Your task to perform on an android device: Search for the best rated soccer ball on AliExpress Image 0: 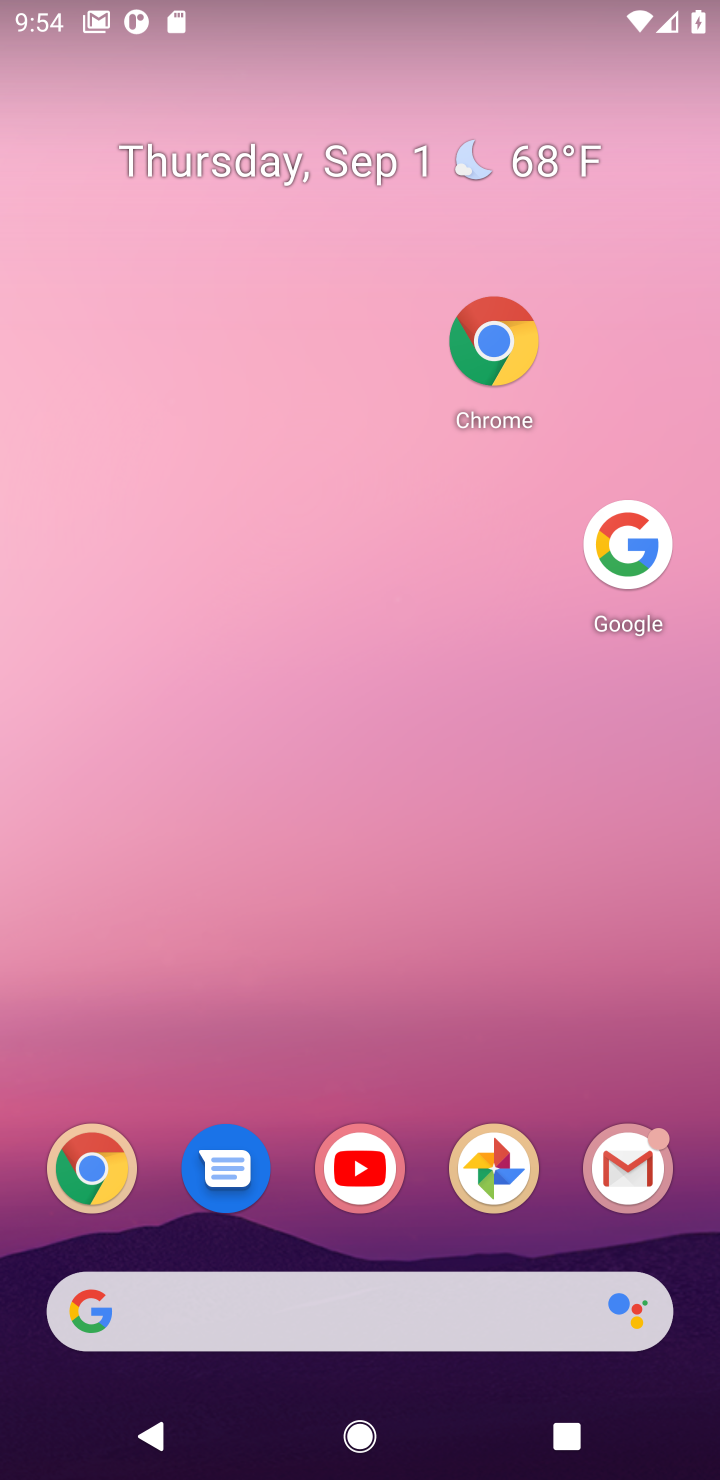
Step 0: click (626, 536)
Your task to perform on an android device: Search for the best rated soccer ball on AliExpress Image 1: 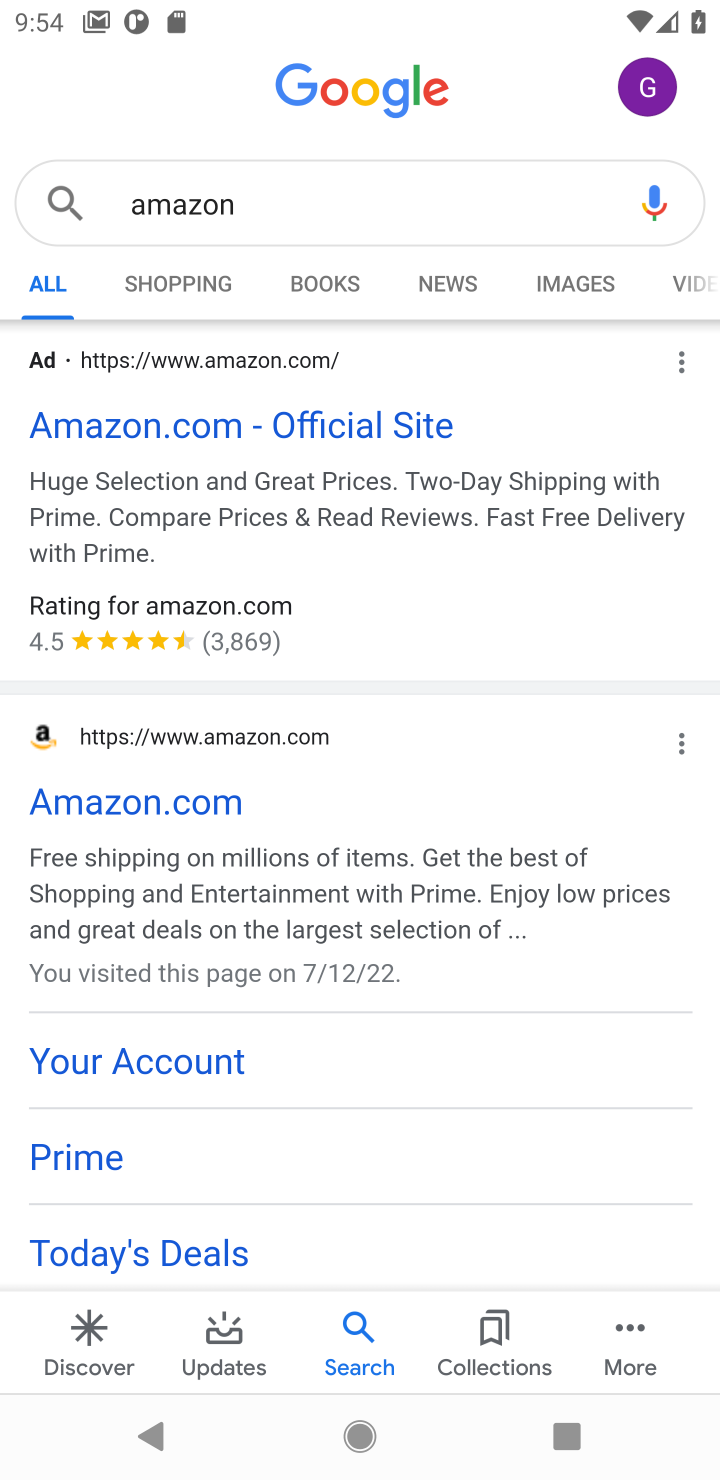
Step 1: click (369, 200)
Your task to perform on an android device: Search for the best rated soccer ball on AliExpress Image 2: 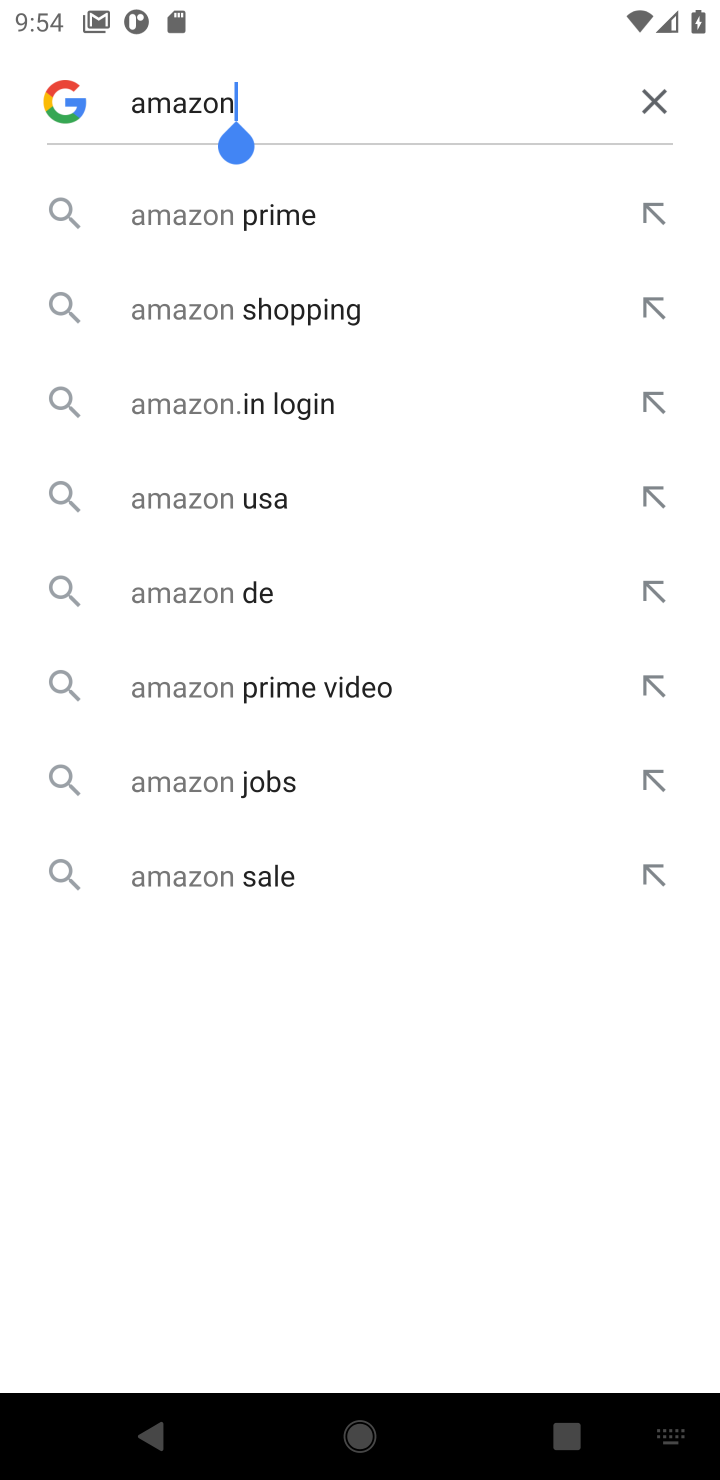
Step 2: click (644, 95)
Your task to perform on an android device: Search for the best rated soccer ball on AliExpress Image 3: 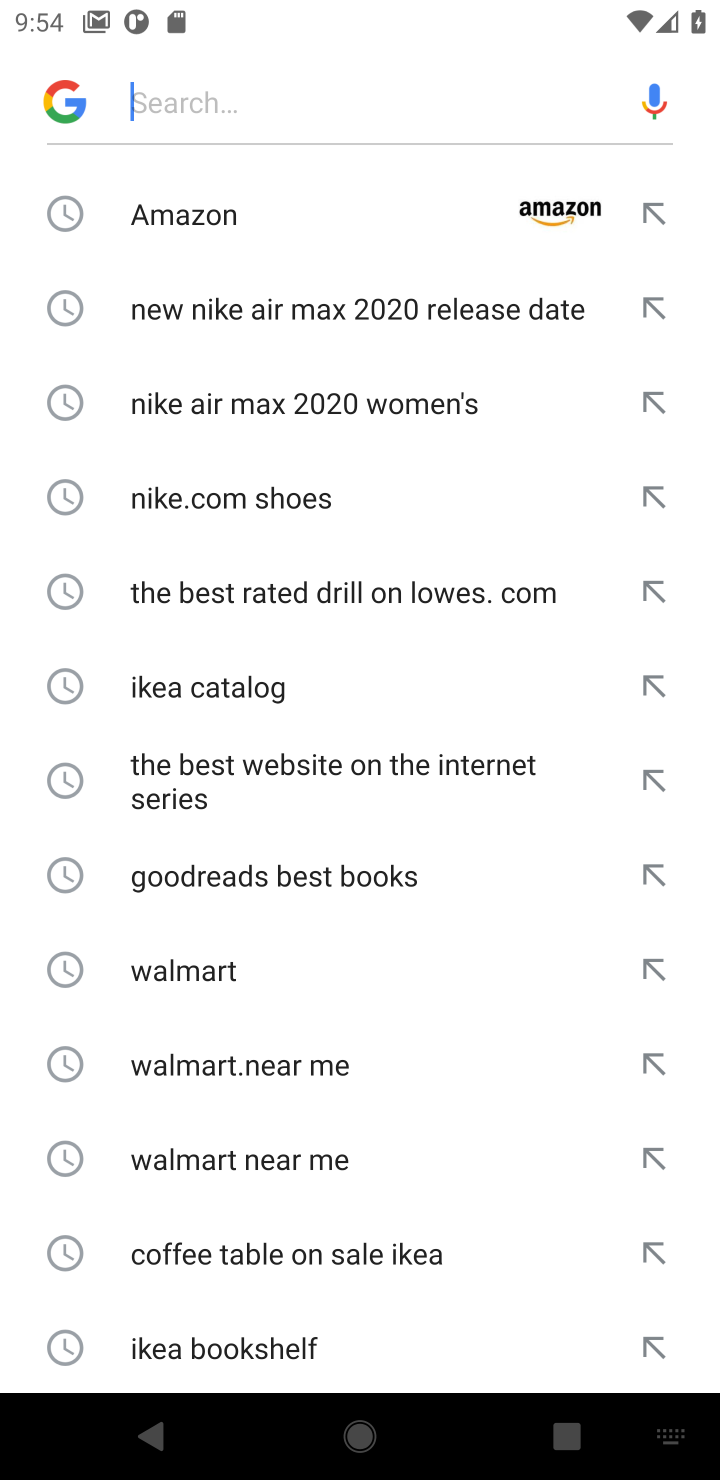
Step 3: click (226, 95)
Your task to perform on an android device: Search for the best rated soccer ball on AliExpress Image 4: 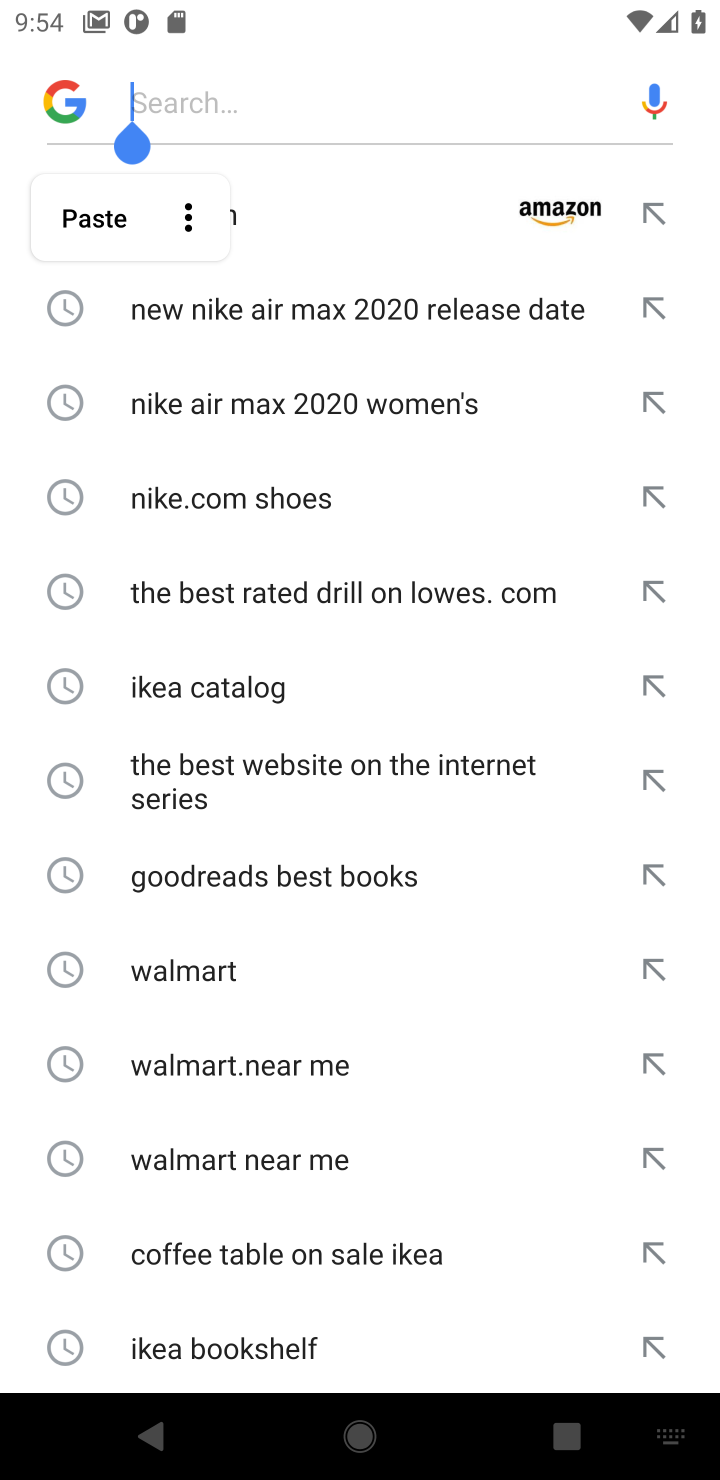
Step 4: type "AliExpress "
Your task to perform on an android device: Search for the best rated soccer ball on AliExpress Image 5: 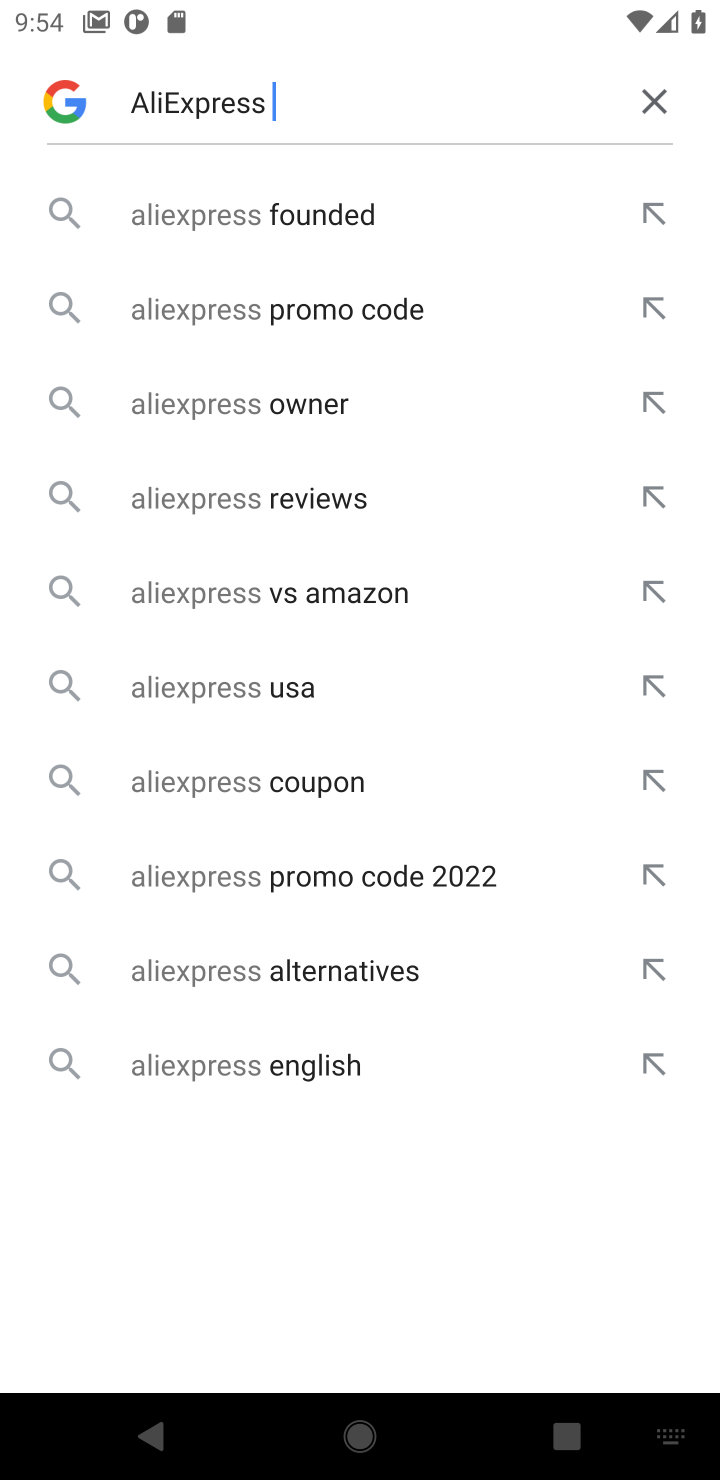
Step 5: click (234, 223)
Your task to perform on an android device: Search for the best rated soccer ball on AliExpress Image 6: 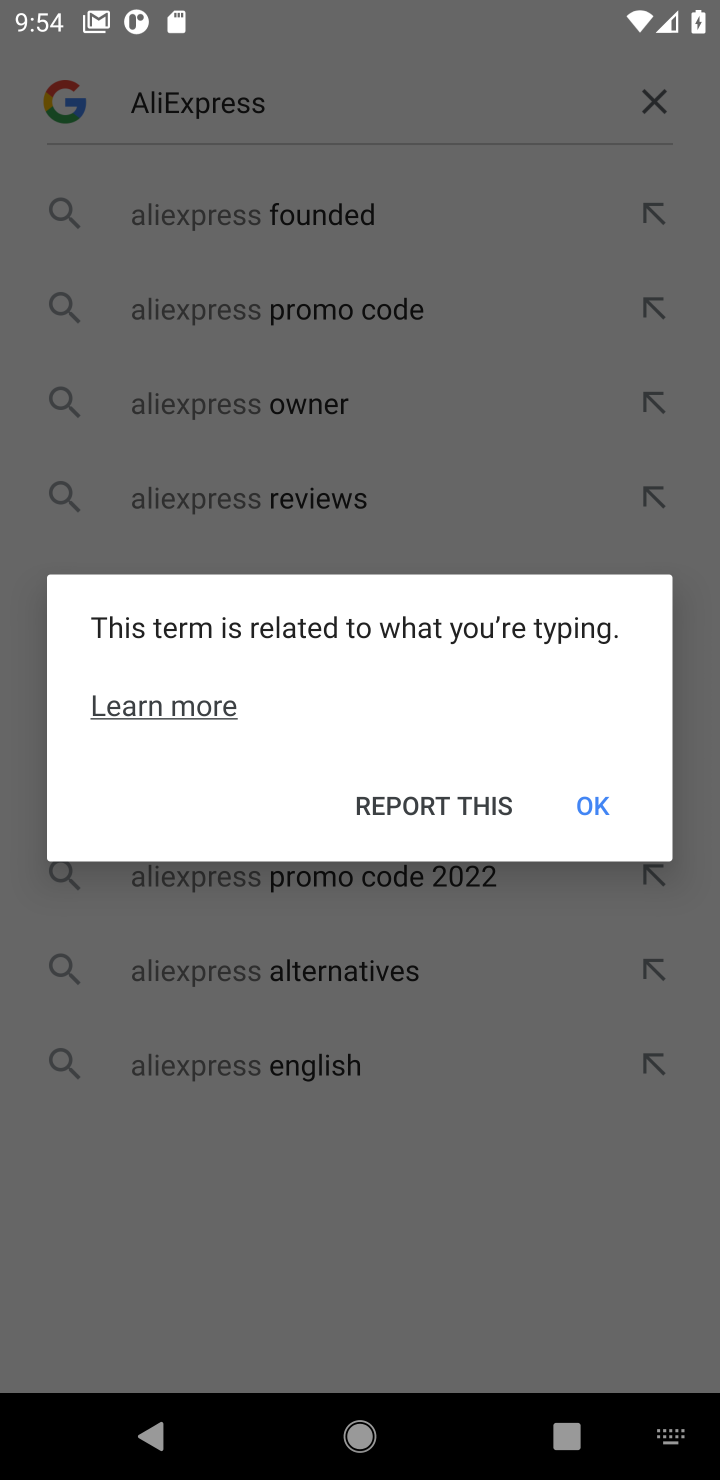
Step 6: click (605, 823)
Your task to perform on an android device: Search for the best rated soccer ball on AliExpress Image 7: 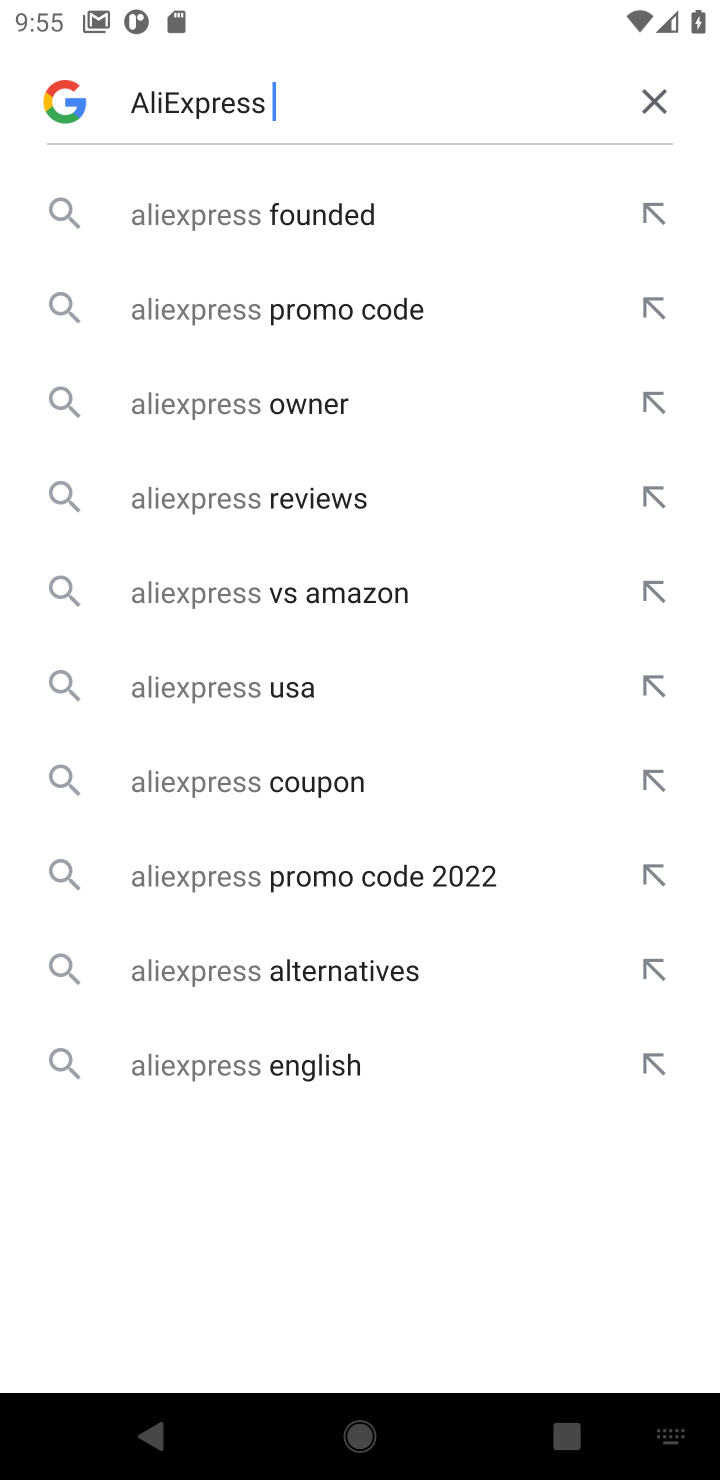
Step 7: click (652, 102)
Your task to perform on an android device: Search for the best rated soccer ball on AliExpress Image 8: 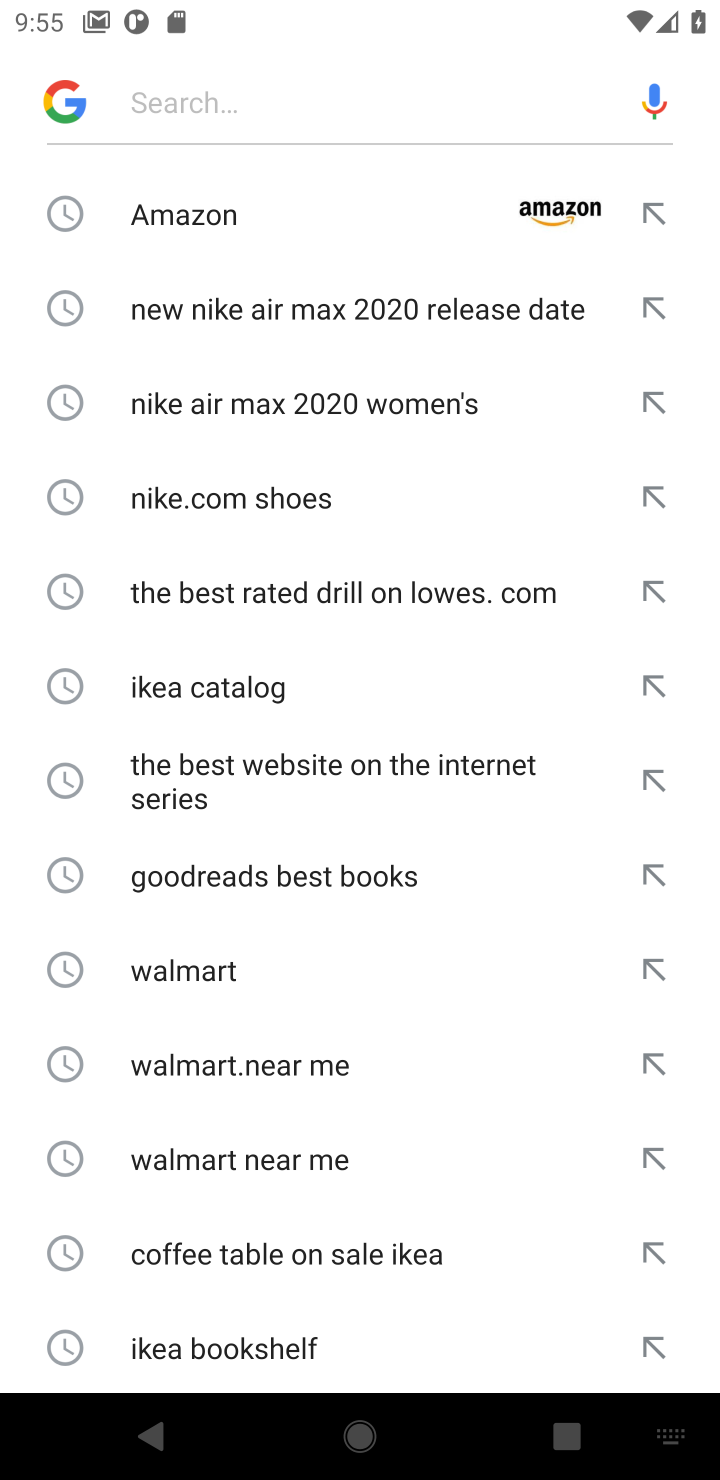
Step 8: click (255, 92)
Your task to perform on an android device: Search for the best rated soccer ball on AliExpress Image 9: 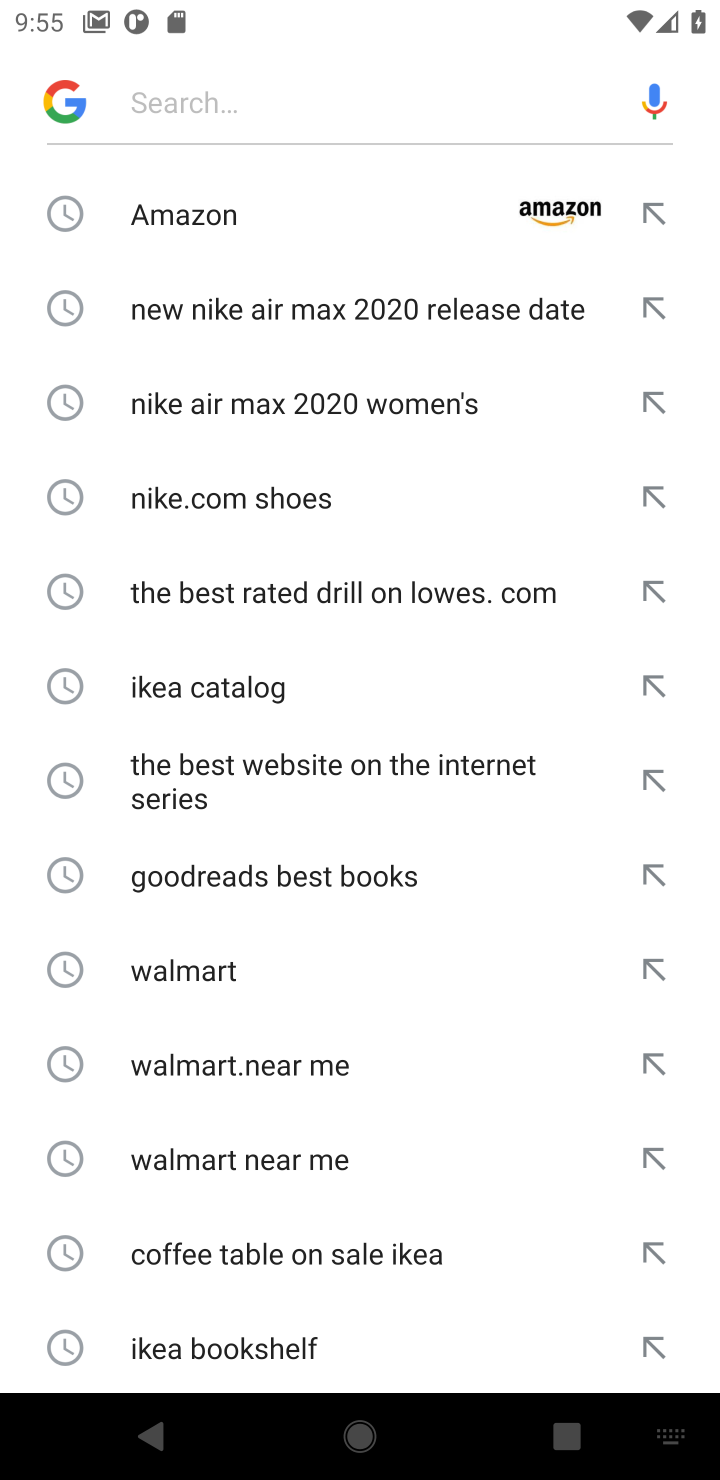
Step 9: type " the best rated soccer ball on AliExpress"
Your task to perform on an android device: Search for the best rated soccer ball on AliExpress Image 10: 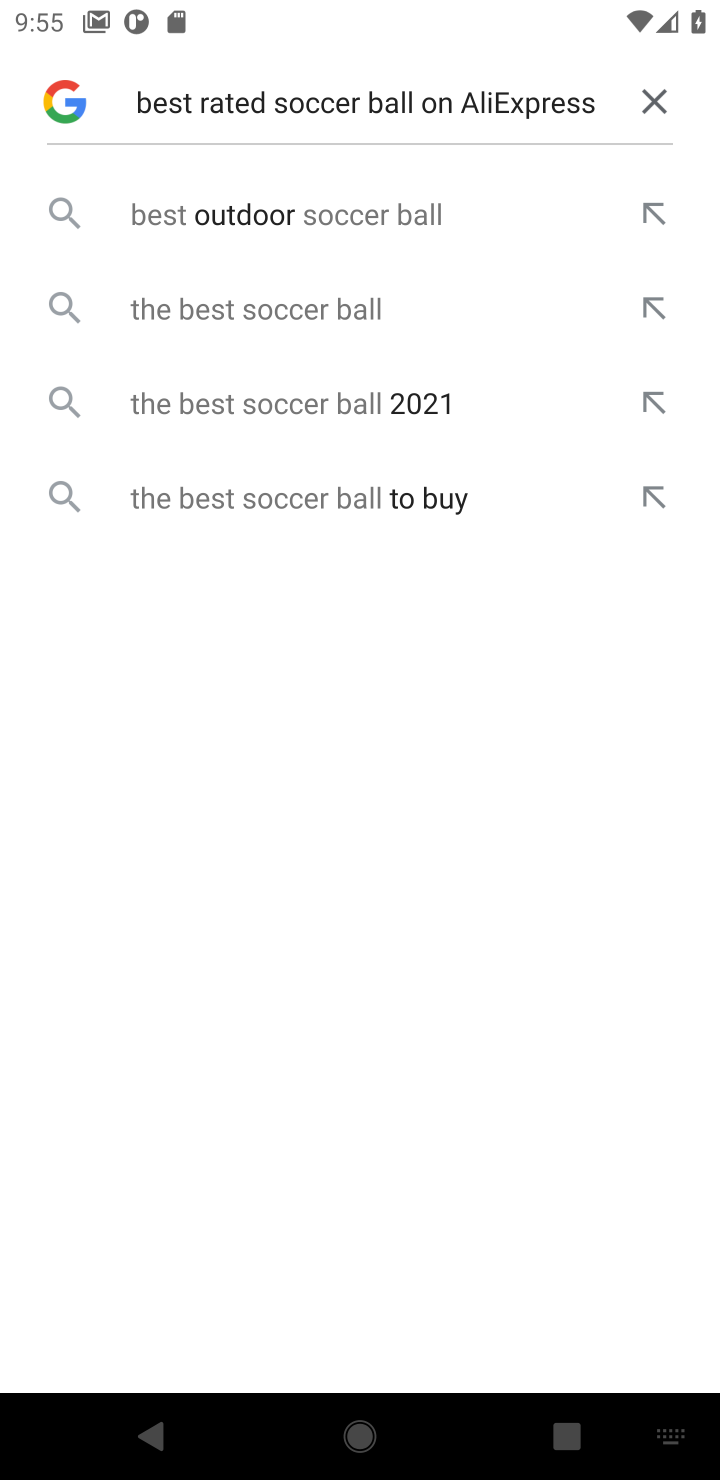
Step 10: click (324, 203)
Your task to perform on an android device: Search for the best rated soccer ball on AliExpress Image 11: 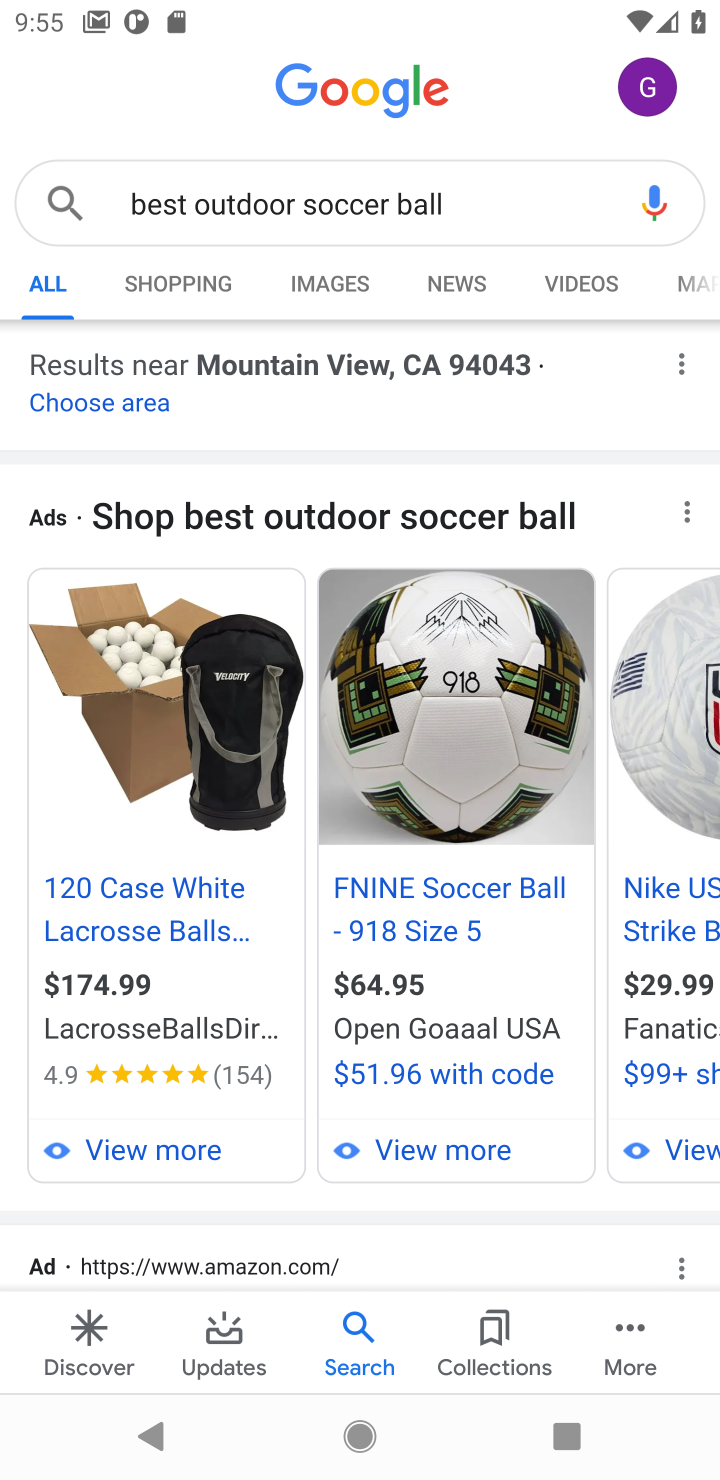
Step 11: task complete